Your task to perform on an android device: What is the recent news? Image 0: 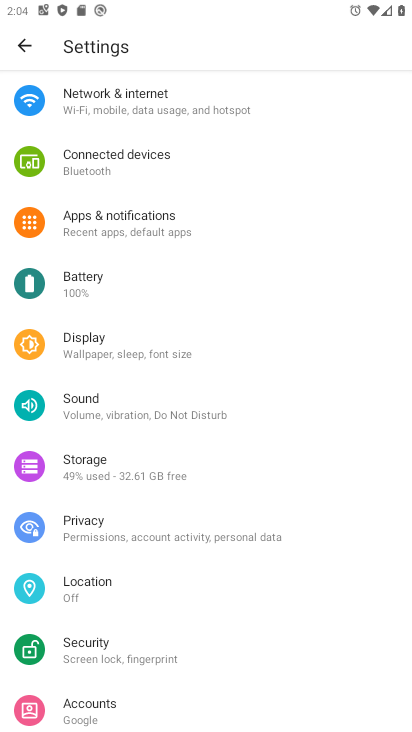
Step 0: press home button
Your task to perform on an android device: What is the recent news? Image 1: 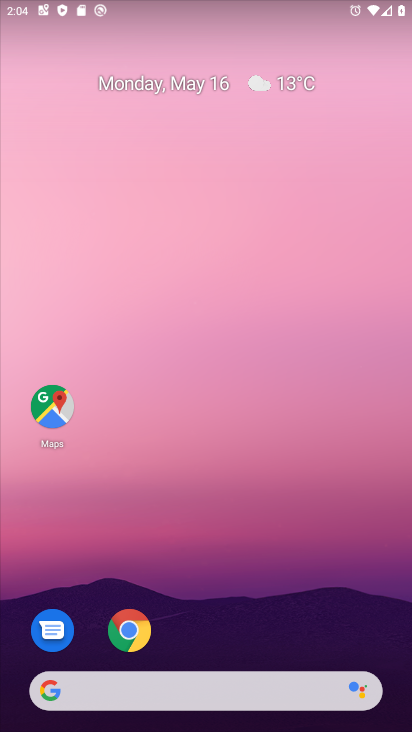
Step 1: click (243, 690)
Your task to perform on an android device: What is the recent news? Image 2: 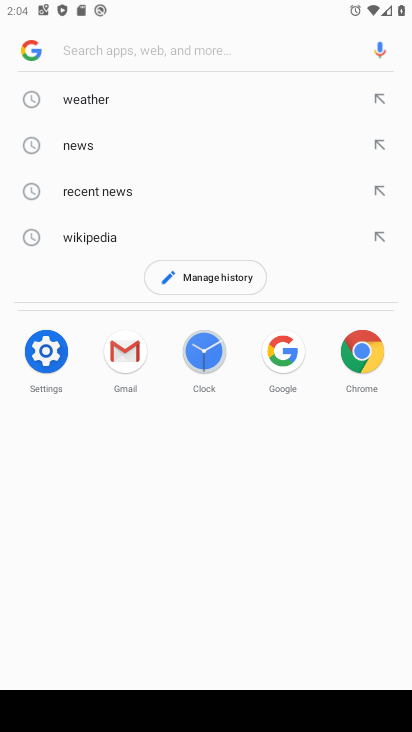
Step 2: click (243, 690)
Your task to perform on an android device: What is the recent news? Image 3: 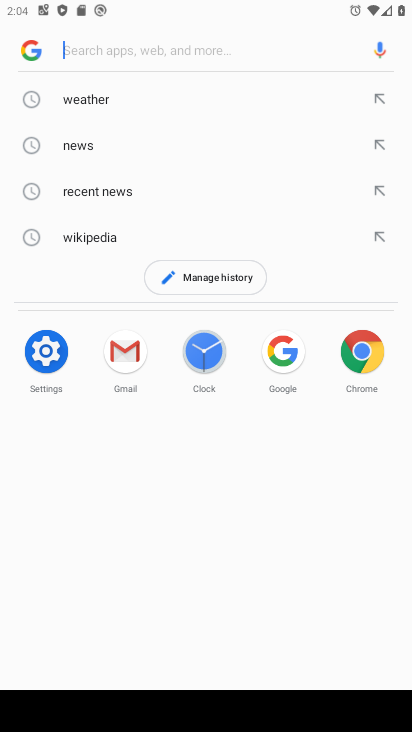
Step 3: click (79, 198)
Your task to perform on an android device: What is the recent news? Image 4: 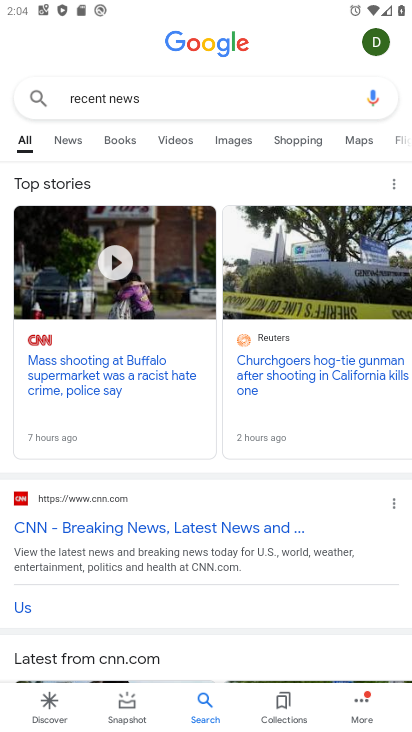
Step 4: task complete